Your task to perform on an android device: turn notification dots off Image 0: 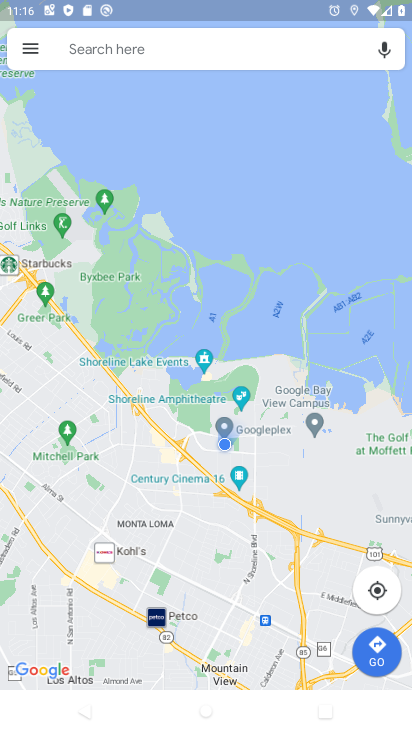
Step 0: press home button
Your task to perform on an android device: turn notification dots off Image 1: 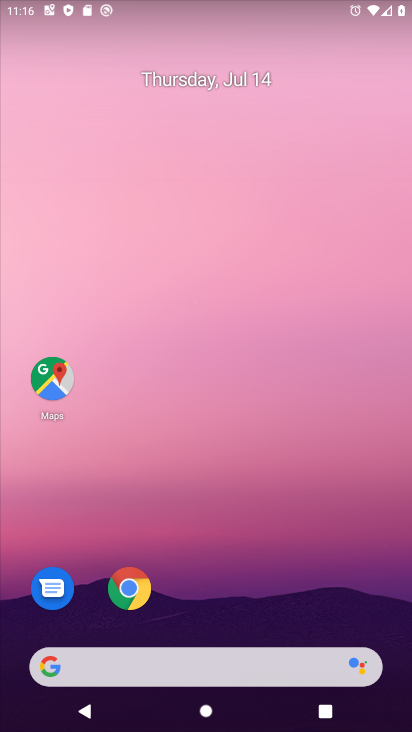
Step 1: drag from (395, 662) to (332, 108)
Your task to perform on an android device: turn notification dots off Image 2: 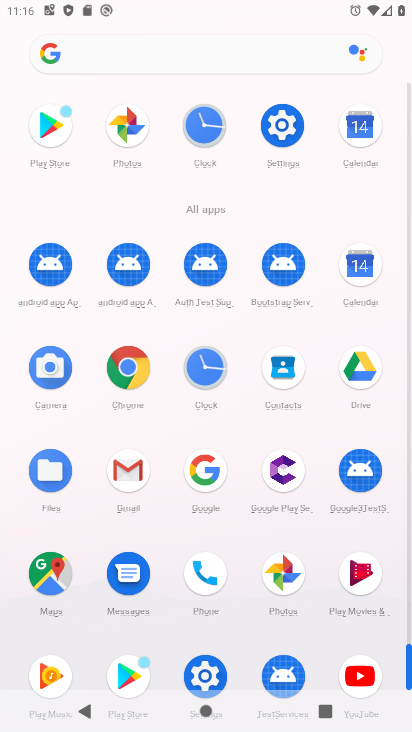
Step 2: click (200, 676)
Your task to perform on an android device: turn notification dots off Image 3: 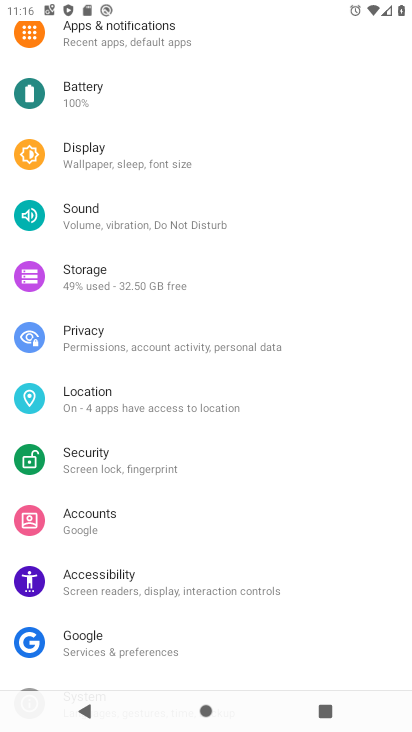
Step 3: drag from (282, 128) to (316, 348)
Your task to perform on an android device: turn notification dots off Image 4: 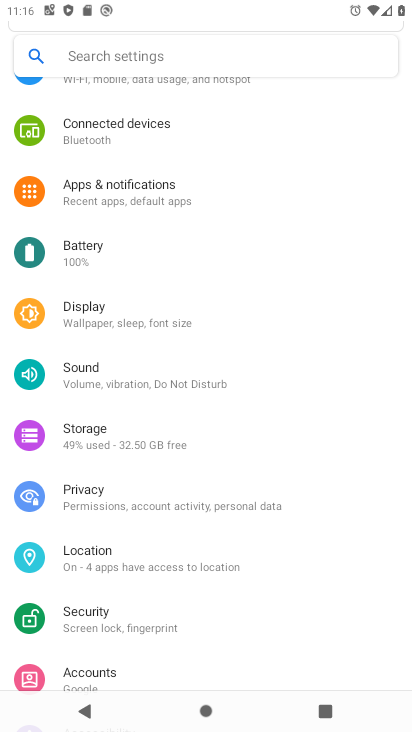
Step 4: click (96, 177)
Your task to perform on an android device: turn notification dots off Image 5: 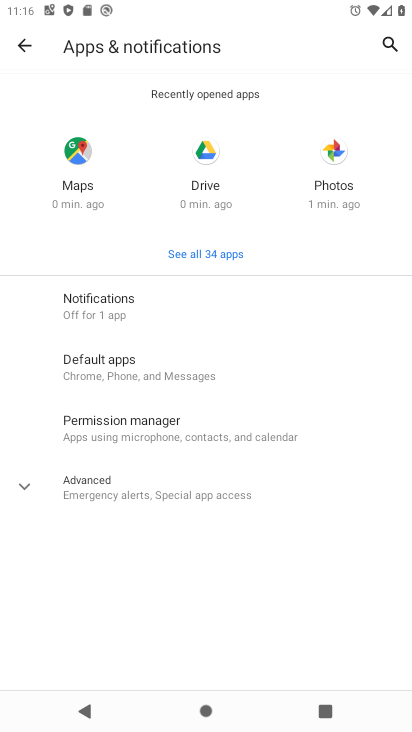
Step 5: click (87, 307)
Your task to perform on an android device: turn notification dots off Image 6: 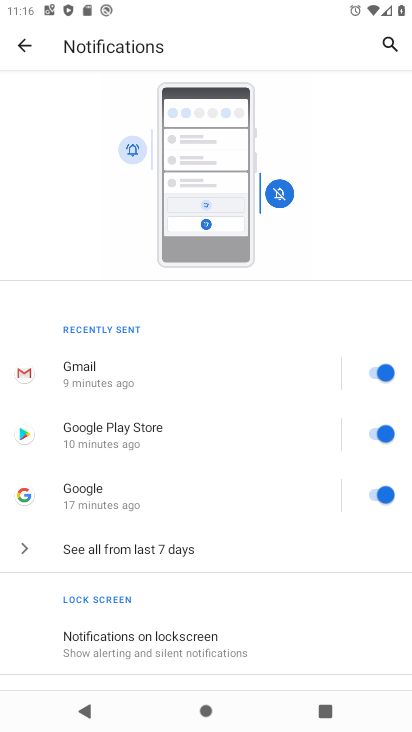
Step 6: drag from (271, 626) to (243, 247)
Your task to perform on an android device: turn notification dots off Image 7: 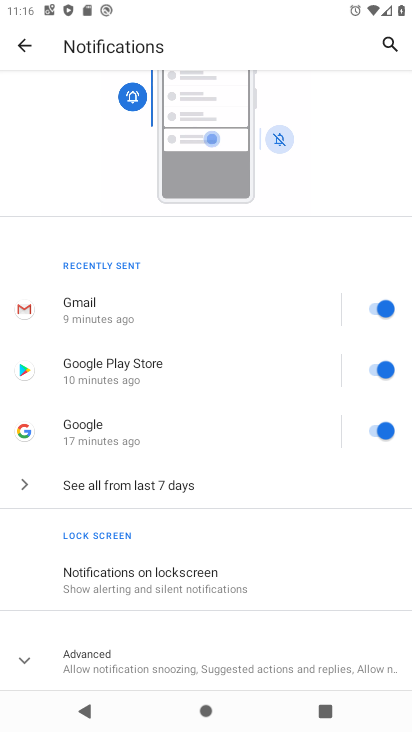
Step 7: click (18, 658)
Your task to perform on an android device: turn notification dots off Image 8: 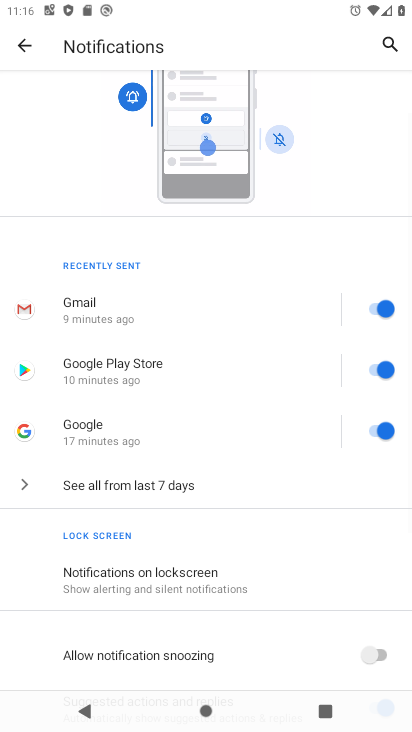
Step 8: drag from (240, 646) to (252, 180)
Your task to perform on an android device: turn notification dots off Image 9: 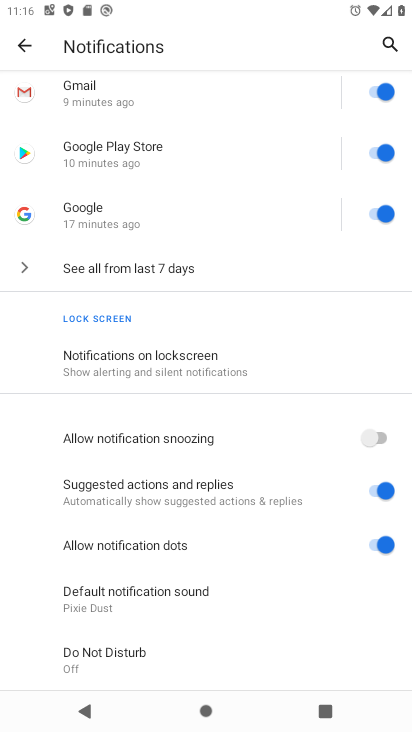
Step 9: click (372, 546)
Your task to perform on an android device: turn notification dots off Image 10: 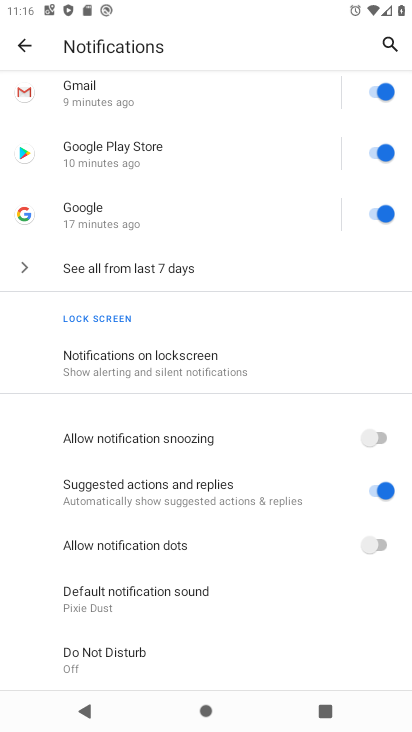
Step 10: task complete